Your task to perform on an android device: Open Google Maps Image 0: 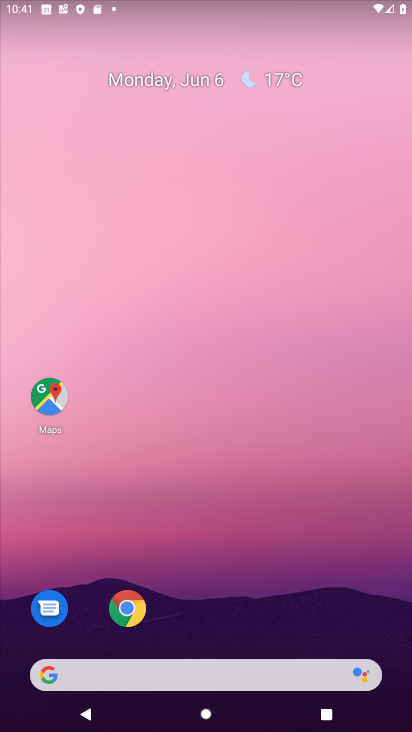
Step 0: click (34, 402)
Your task to perform on an android device: Open Google Maps Image 1: 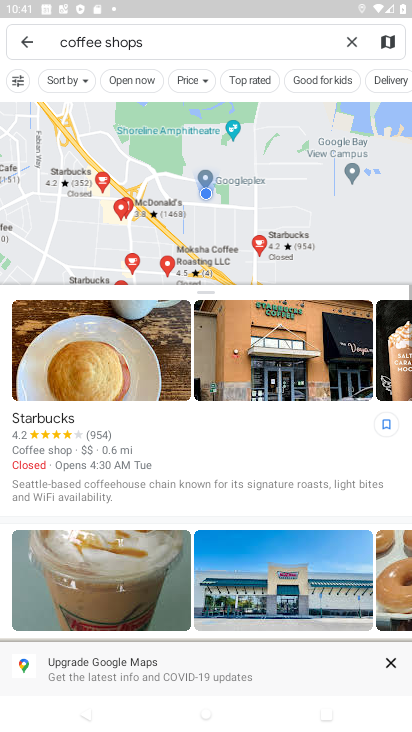
Step 1: task complete